Your task to perform on an android device: Go to settings Image 0: 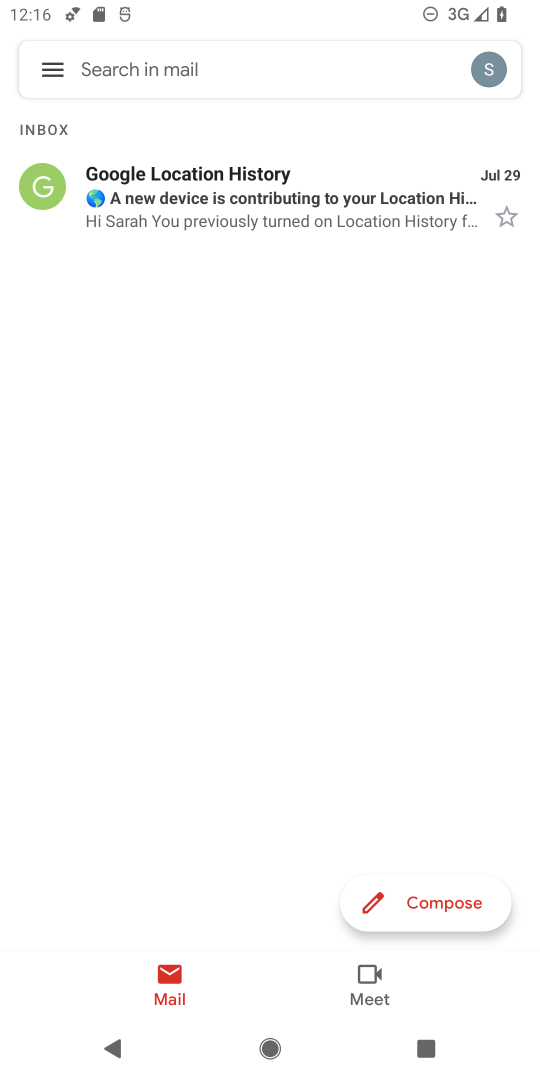
Step 0: press home button
Your task to perform on an android device: Go to settings Image 1: 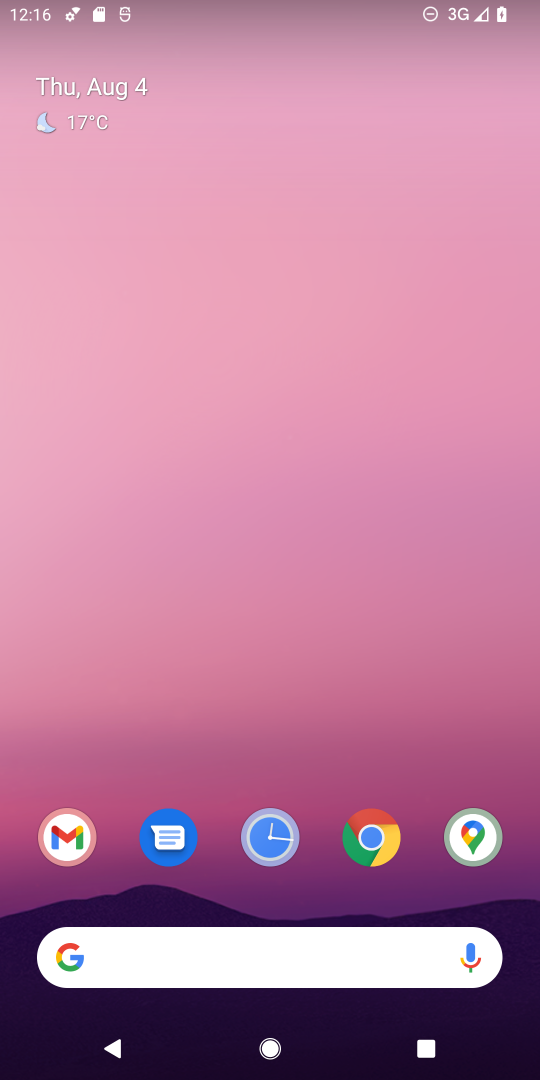
Step 1: drag from (487, 897) to (334, 28)
Your task to perform on an android device: Go to settings Image 2: 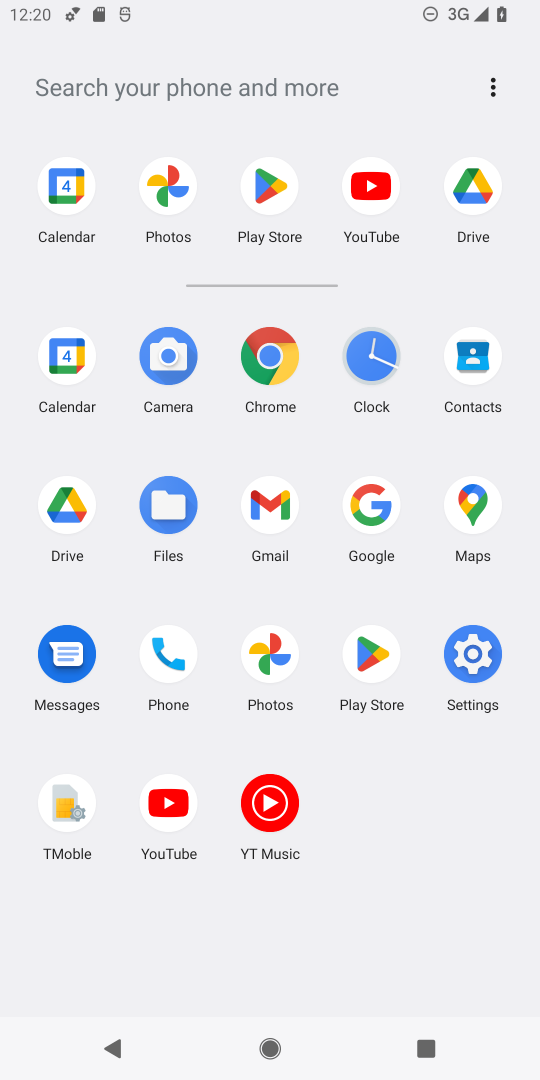
Step 2: click (477, 648)
Your task to perform on an android device: Go to settings Image 3: 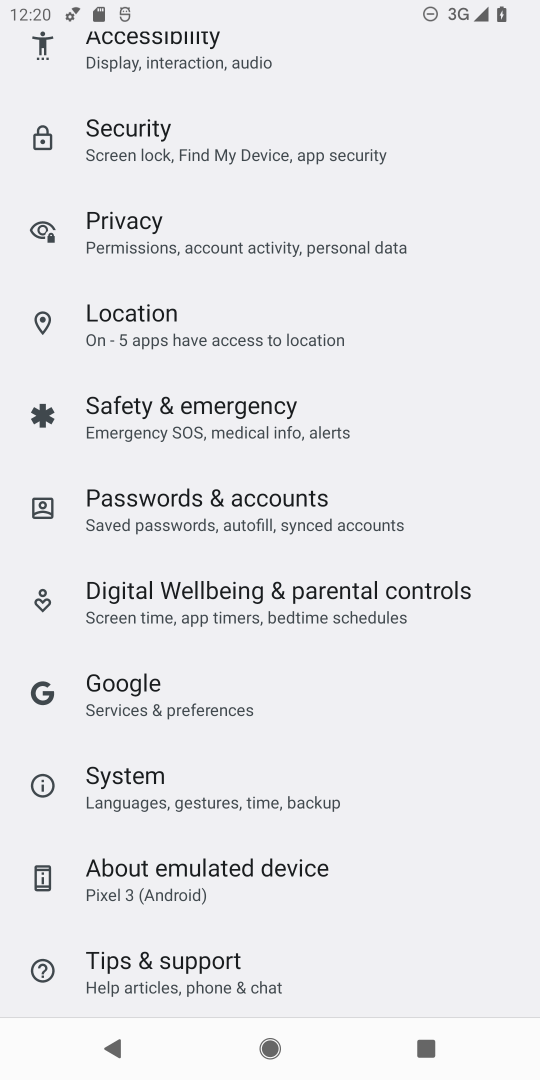
Step 3: task complete